Your task to perform on an android device: Go to Wikipedia Image 0: 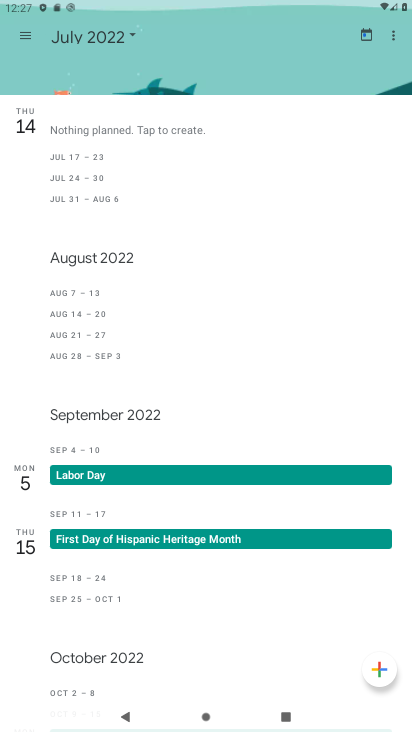
Step 0: press home button
Your task to perform on an android device: Go to Wikipedia Image 1: 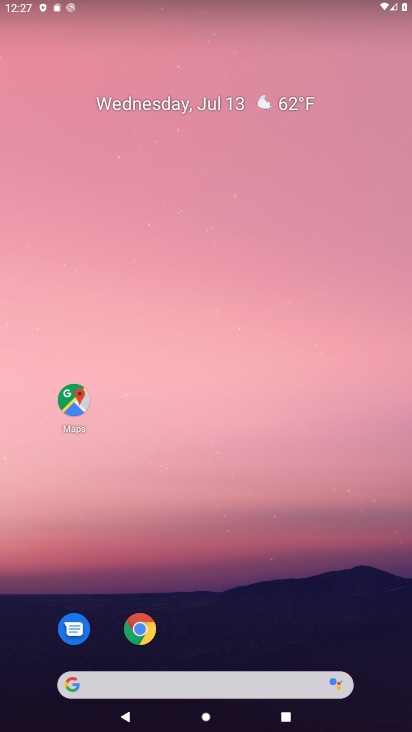
Step 1: click (128, 620)
Your task to perform on an android device: Go to Wikipedia Image 2: 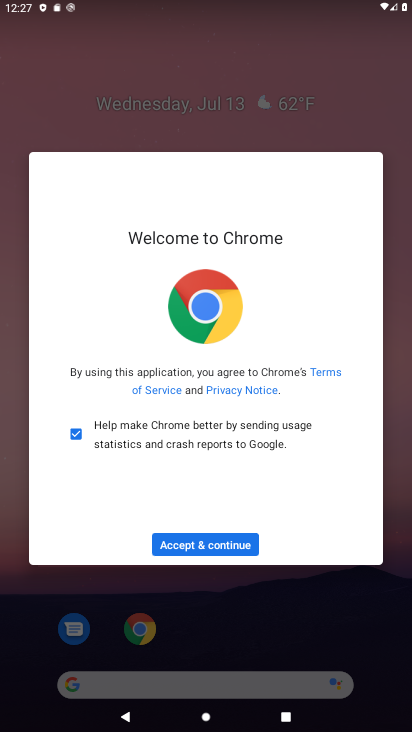
Step 2: click (201, 541)
Your task to perform on an android device: Go to Wikipedia Image 3: 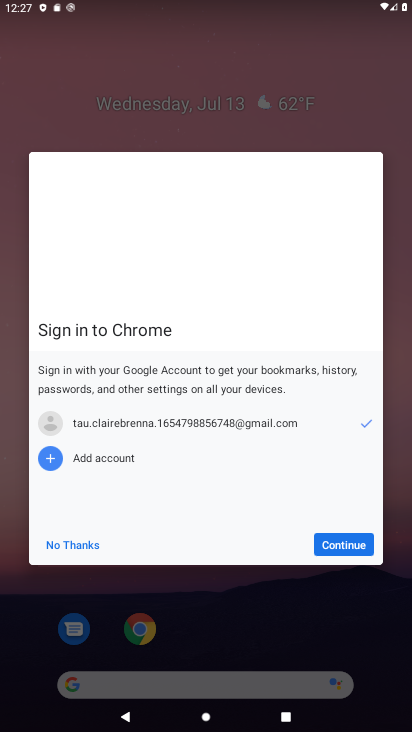
Step 3: click (333, 545)
Your task to perform on an android device: Go to Wikipedia Image 4: 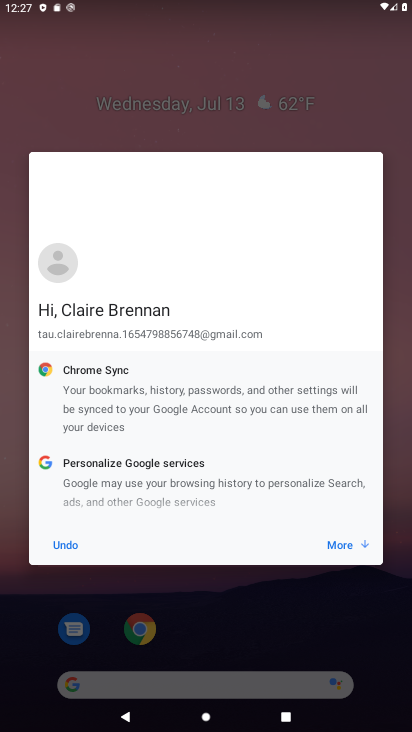
Step 4: click (333, 545)
Your task to perform on an android device: Go to Wikipedia Image 5: 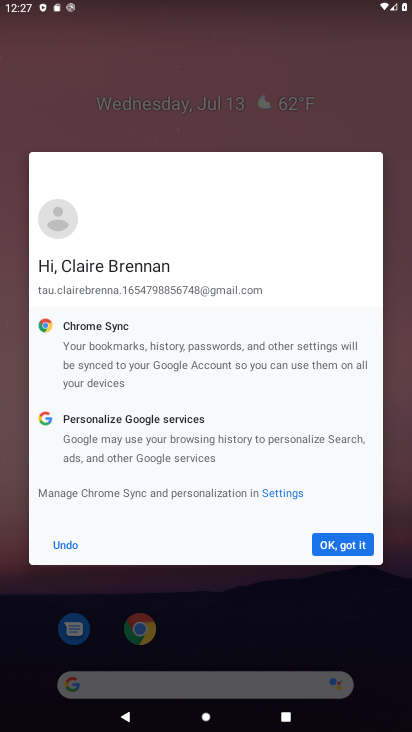
Step 5: click (333, 545)
Your task to perform on an android device: Go to Wikipedia Image 6: 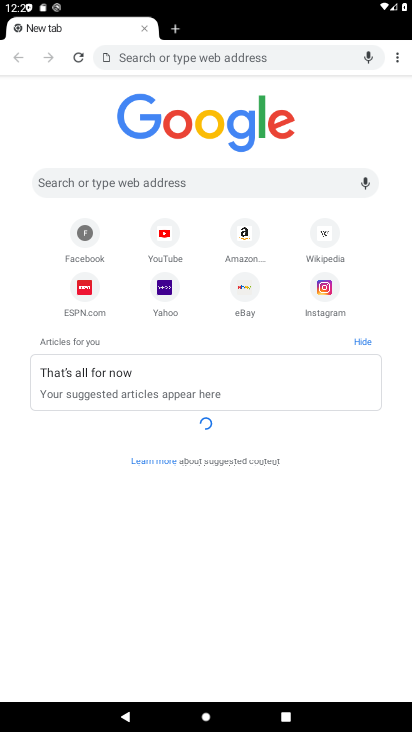
Step 6: click (325, 233)
Your task to perform on an android device: Go to Wikipedia Image 7: 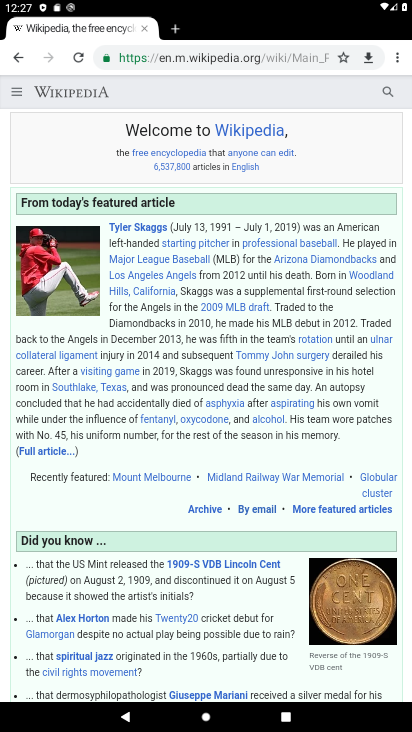
Step 7: task complete